Your task to perform on an android device: add a contact in the contacts app Image 0: 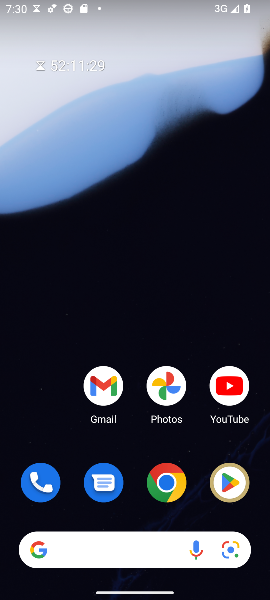
Step 0: drag from (151, 511) to (216, 11)
Your task to perform on an android device: add a contact in the contacts app Image 1: 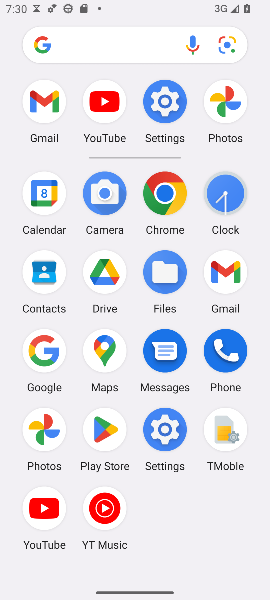
Step 1: click (171, 194)
Your task to perform on an android device: add a contact in the contacts app Image 2: 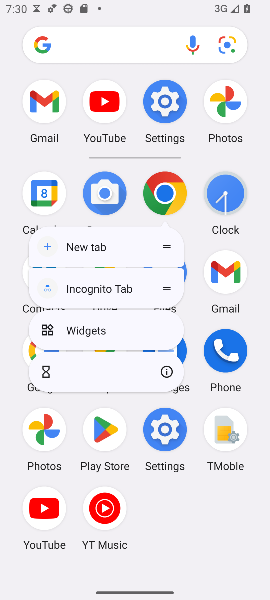
Step 2: click (171, 194)
Your task to perform on an android device: add a contact in the contacts app Image 3: 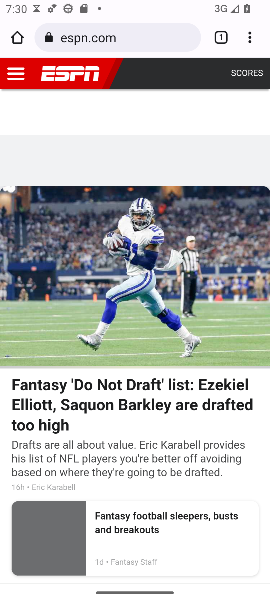
Step 3: press home button
Your task to perform on an android device: add a contact in the contacts app Image 4: 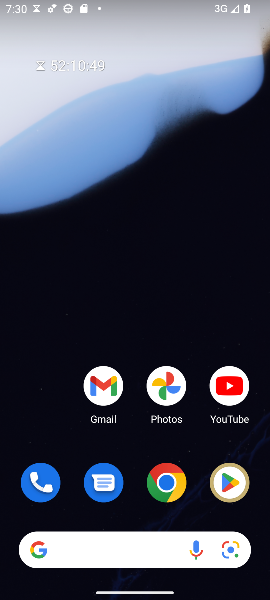
Step 4: drag from (145, 503) to (170, 84)
Your task to perform on an android device: add a contact in the contacts app Image 5: 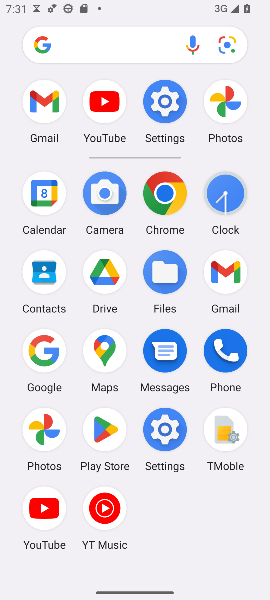
Step 5: click (49, 270)
Your task to perform on an android device: add a contact in the contacts app Image 6: 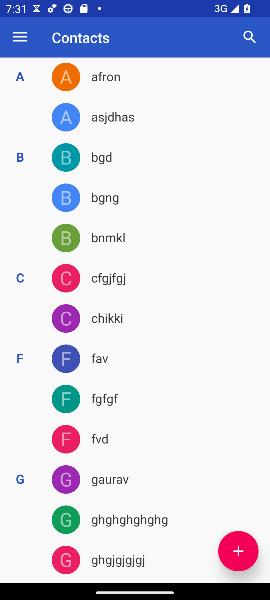
Step 6: click (243, 546)
Your task to perform on an android device: add a contact in the contacts app Image 7: 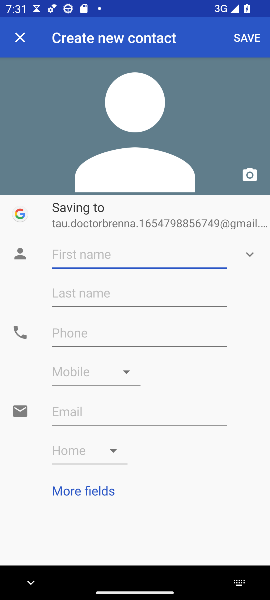
Step 7: type "tyuuuu"
Your task to perform on an android device: add a contact in the contacts app Image 8: 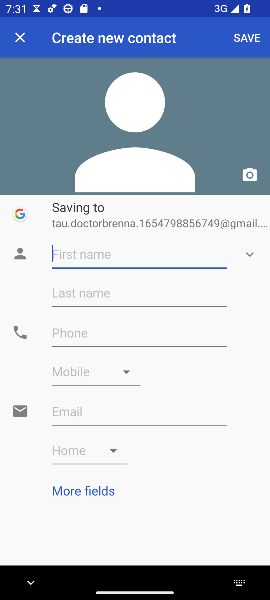
Step 8: click (89, 337)
Your task to perform on an android device: add a contact in the contacts app Image 9: 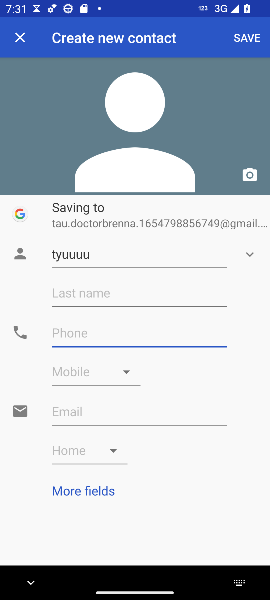
Step 9: type "87654444444566"
Your task to perform on an android device: add a contact in the contacts app Image 10: 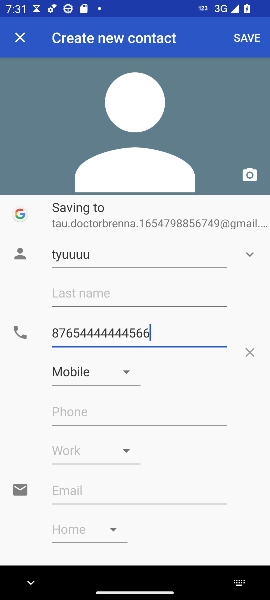
Step 10: click (226, 30)
Your task to perform on an android device: add a contact in the contacts app Image 11: 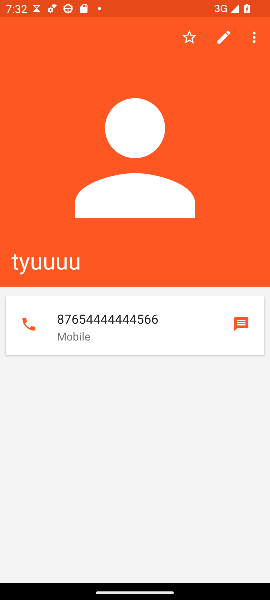
Step 11: task complete